Your task to perform on an android device: set the stopwatch Image 0: 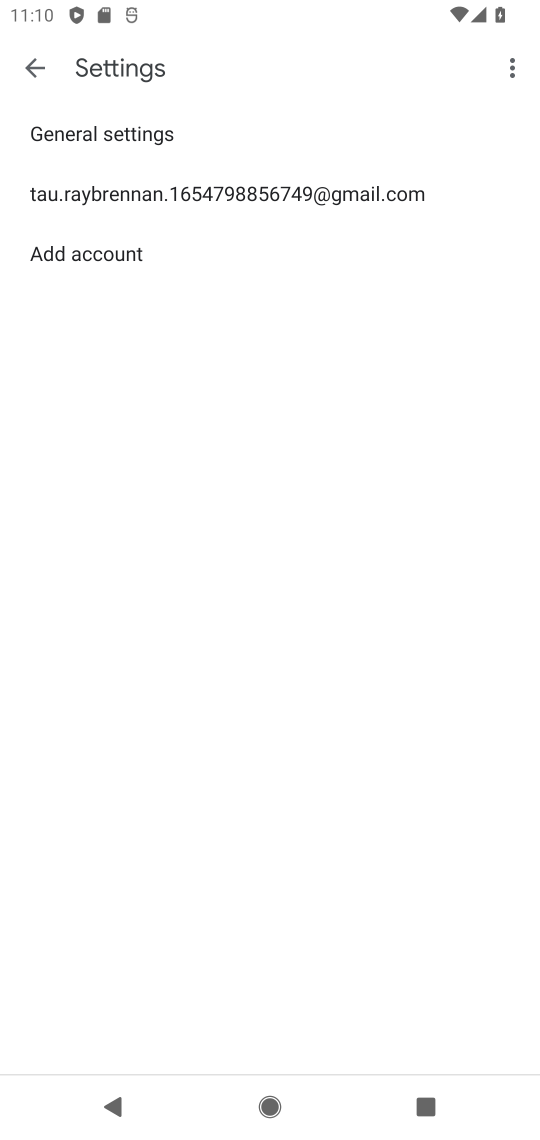
Step 0: press back button
Your task to perform on an android device: set the stopwatch Image 1: 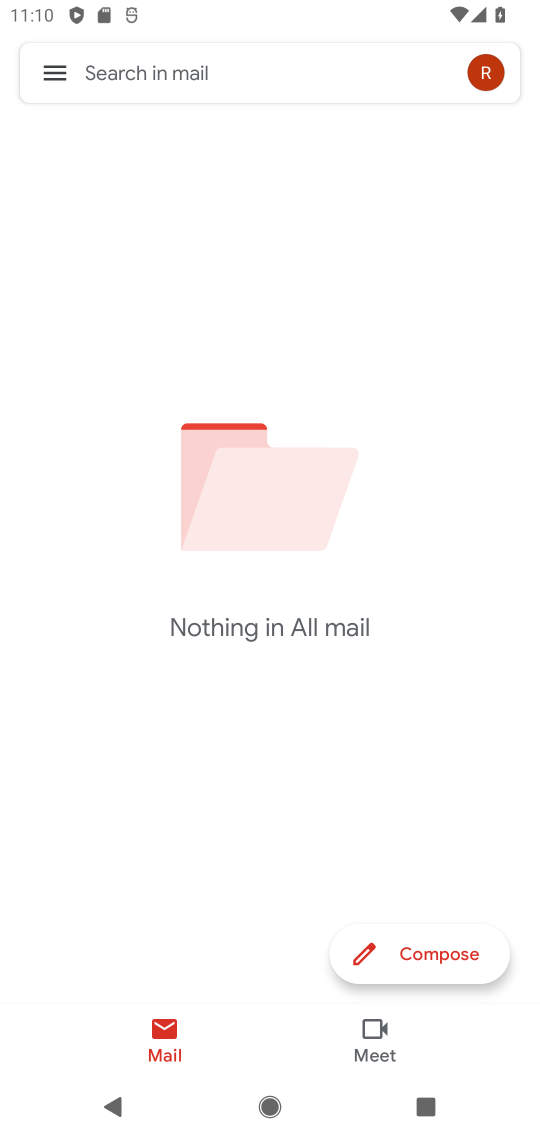
Step 1: press home button
Your task to perform on an android device: set the stopwatch Image 2: 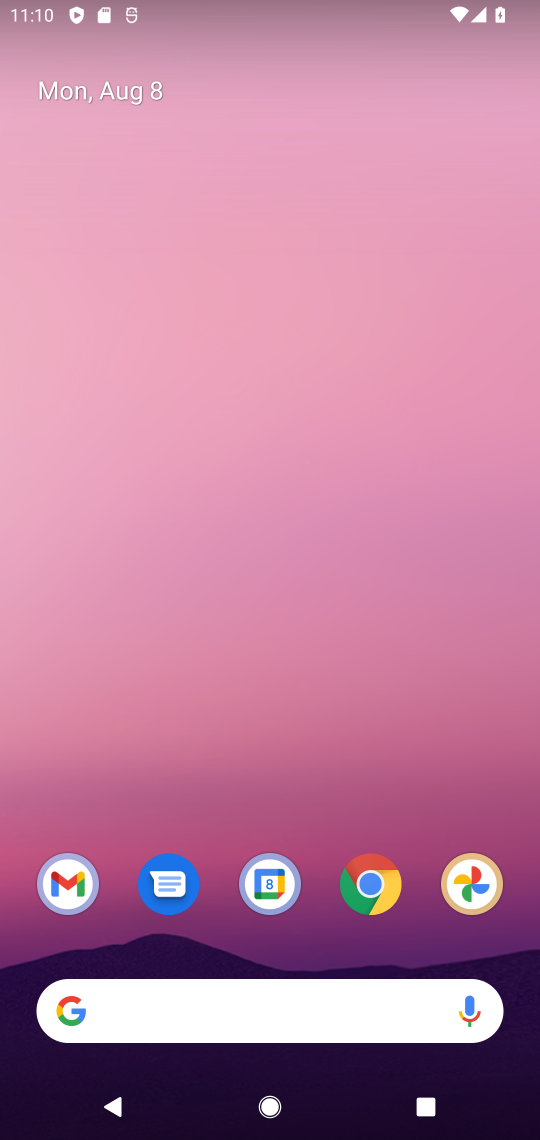
Step 2: drag from (244, 681) to (244, 426)
Your task to perform on an android device: set the stopwatch Image 3: 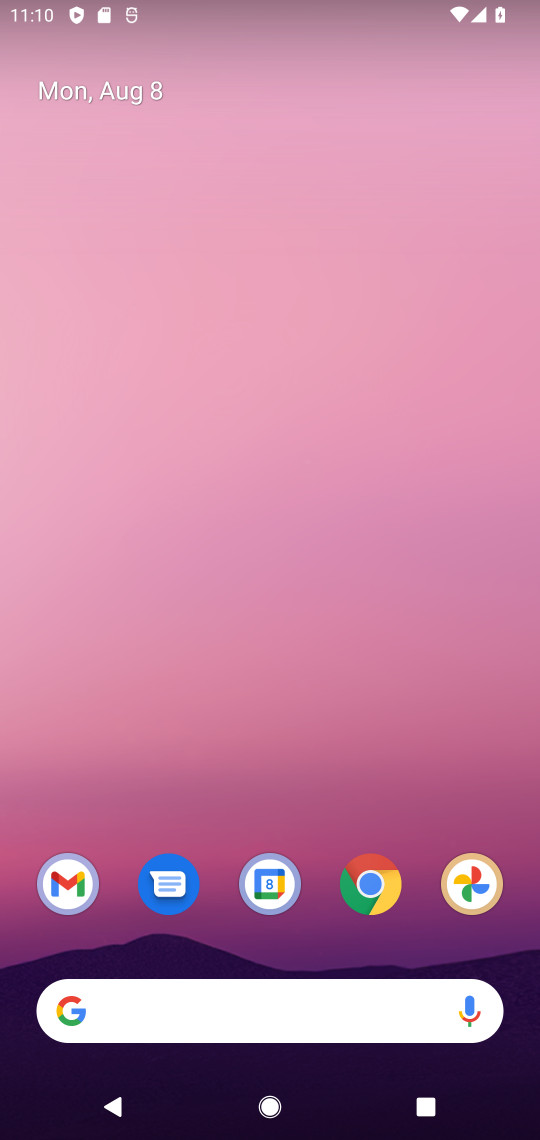
Step 3: drag from (233, 771) to (366, 145)
Your task to perform on an android device: set the stopwatch Image 4: 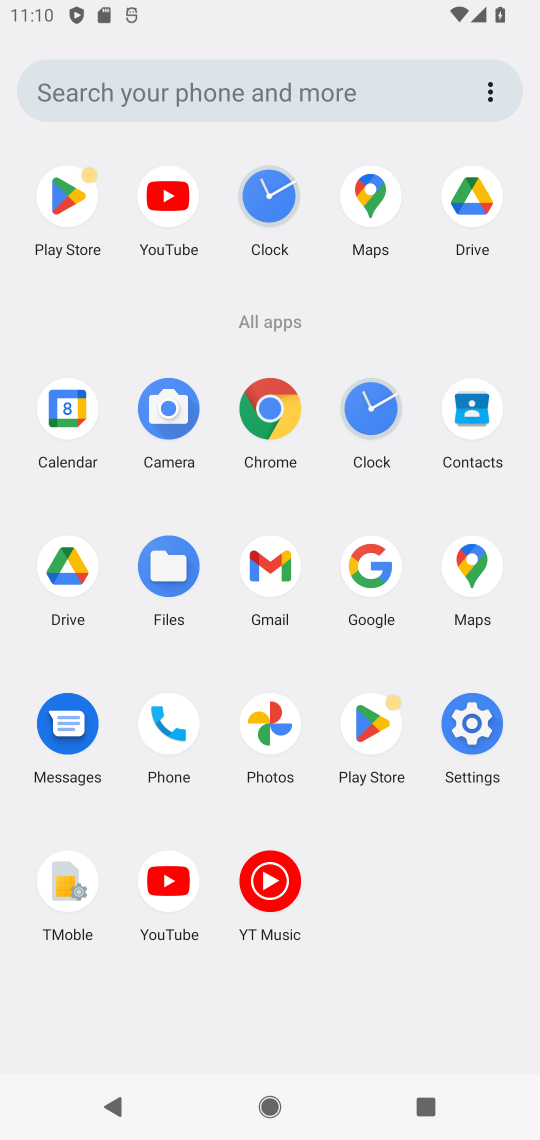
Step 4: click (371, 402)
Your task to perform on an android device: set the stopwatch Image 5: 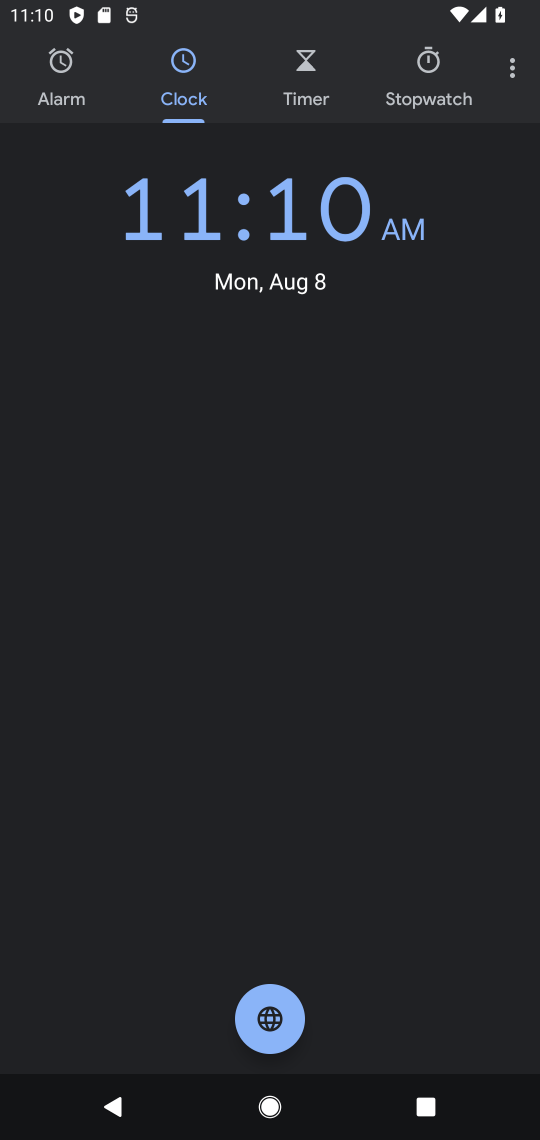
Step 5: click (421, 98)
Your task to perform on an android device: set the stopwatch Image 6: 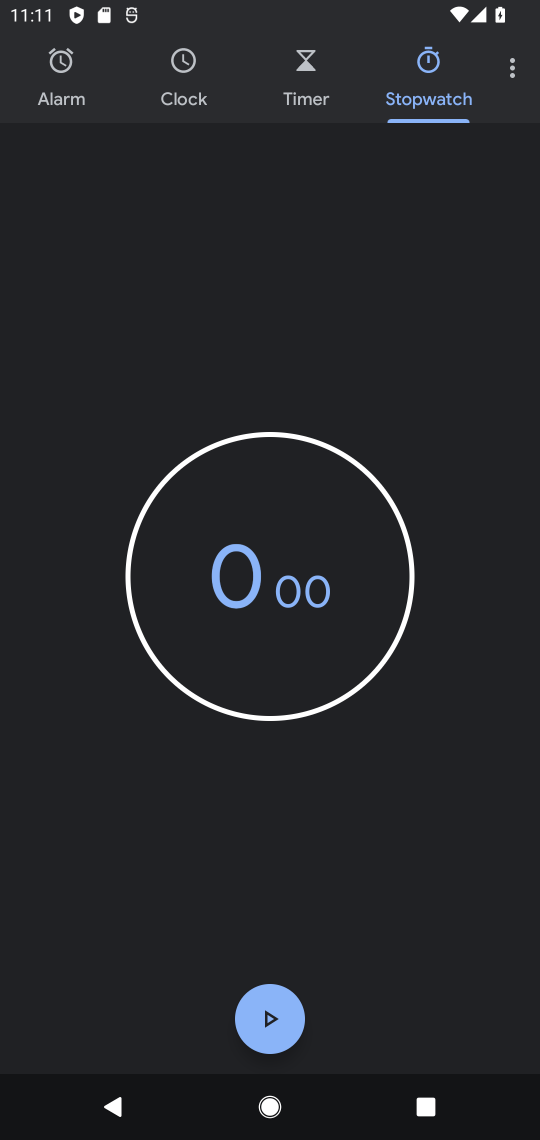
Step 6: click (268, 1038)
Your task to perform on an android device: set the stopwatch Image 7: 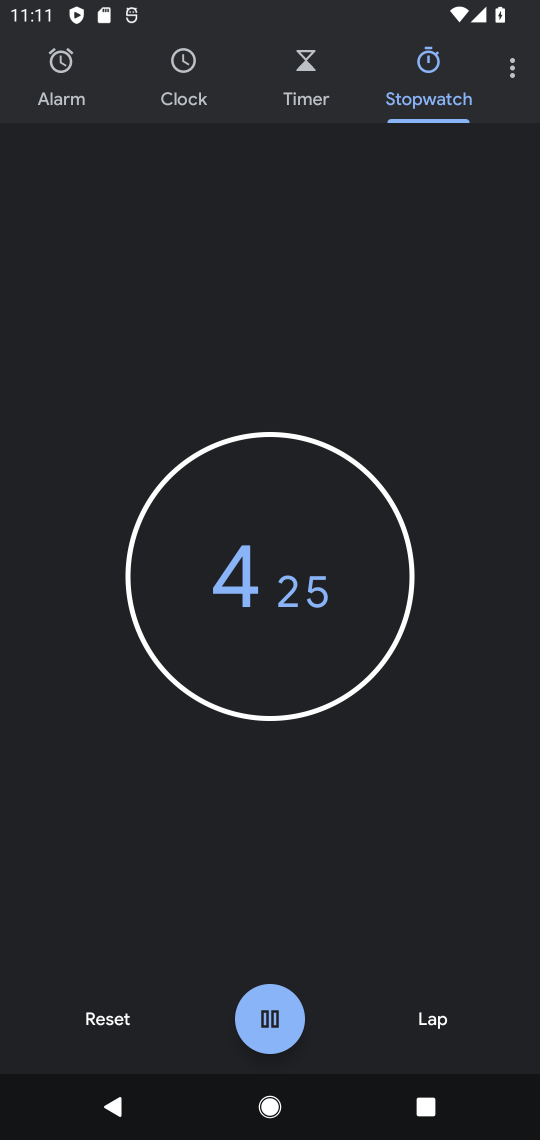
Step 7: click (268, 1038)
Your task to perform on an android device: set the stopwatch Image 8: 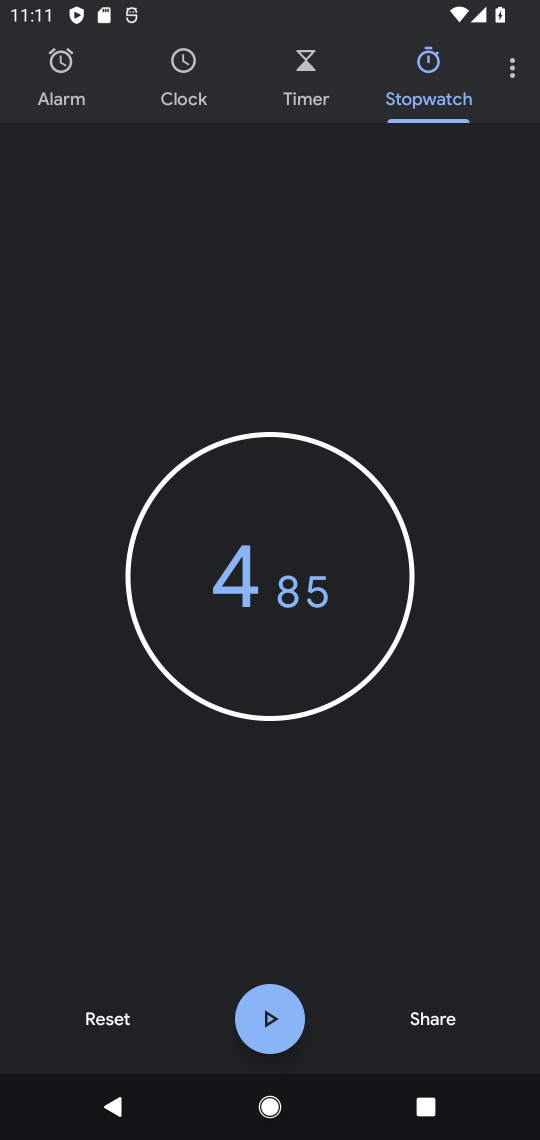
Step 8: task complete